Your task to perform on an android device: Add alienware aurora to the cart on ebay.com, then select checkout. Image 0: 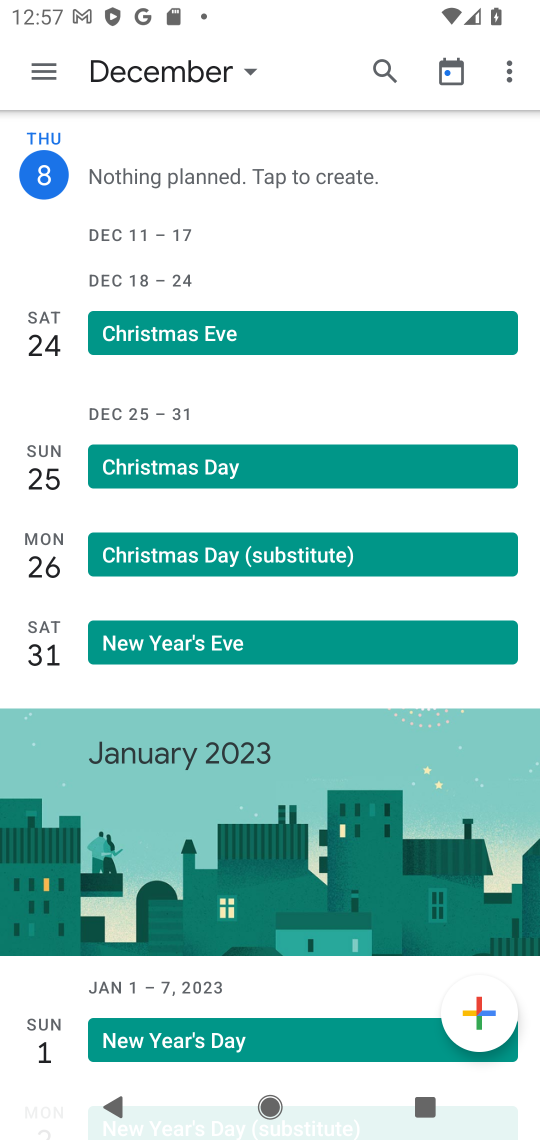
Step 0: press home button
Your task to perform on an android device: Add alienware aurora to the cart on ebay.com, then select checkout. Image 1: 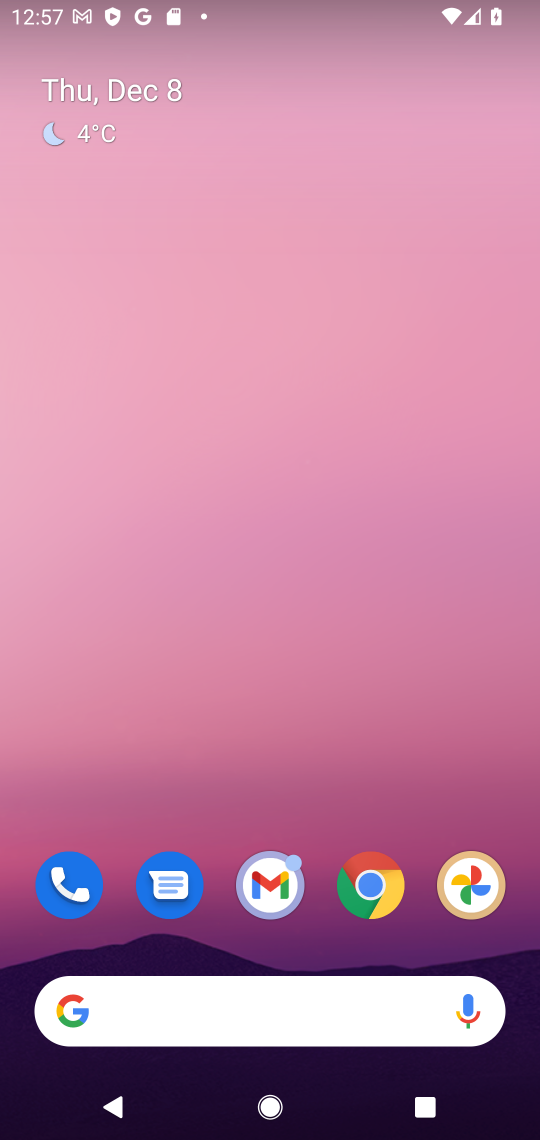
Step 1: click (359, 881)
Your task to perform on an android device: Add alienware aurora to the cart on ebay.com, then select checkout. Image 2: 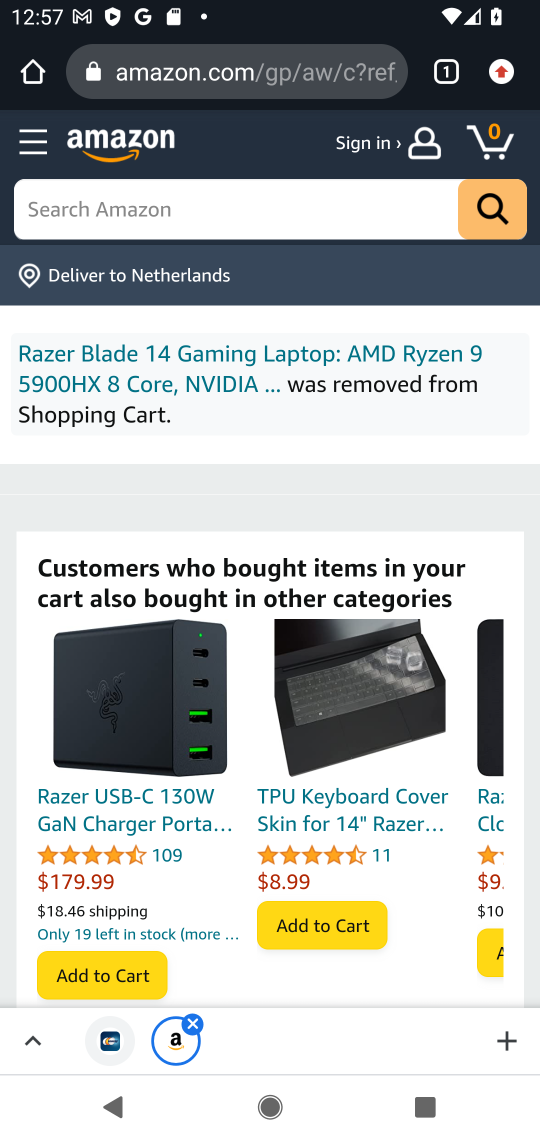
Step 2: click (270, 73)
Your task to perform on an android device: Add alienware aurora to the cart on ebay.com, then select checkout. Image 3: 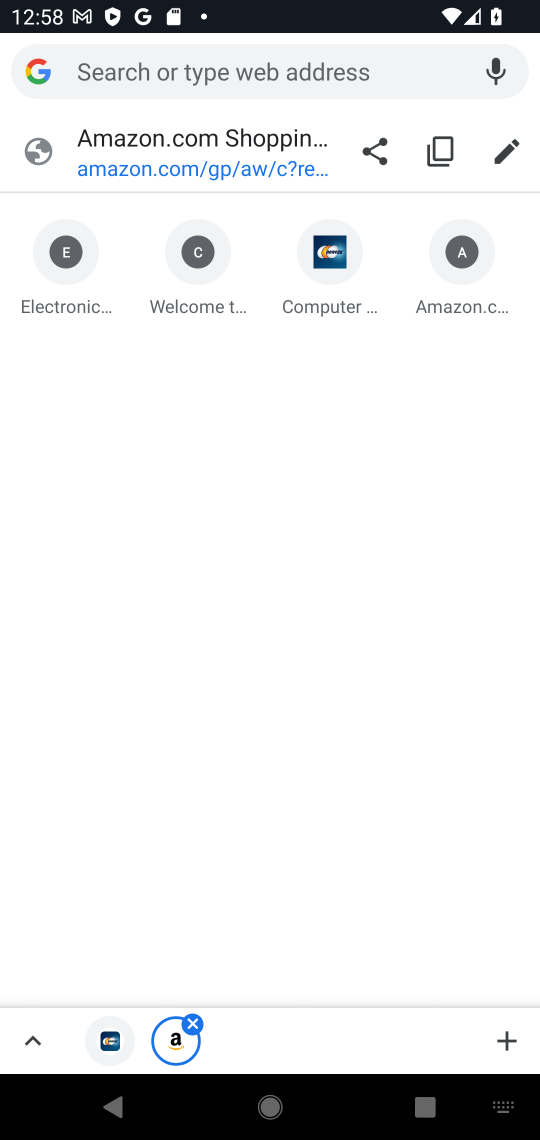
Step 3: type "EBAY"
Your task to perform on an android device: Add alienware aurora to the cart on ebay.com, then select checkout. Image 4: 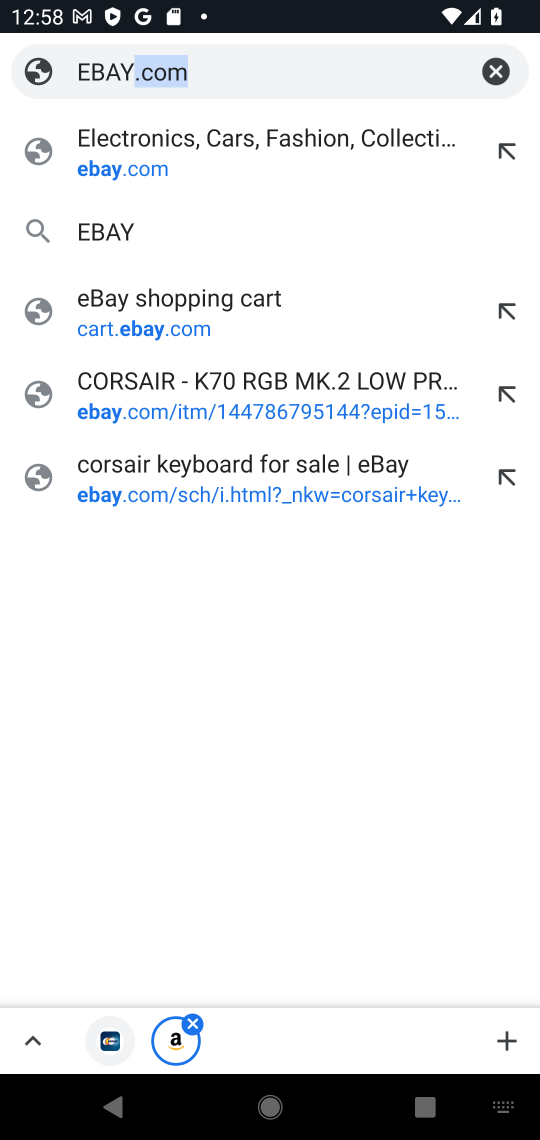
Step 4: click (177, 162)
Your task to perform on an android device: Add alienware aurora to the cart on ebay.com, then select checkout. Image 5: 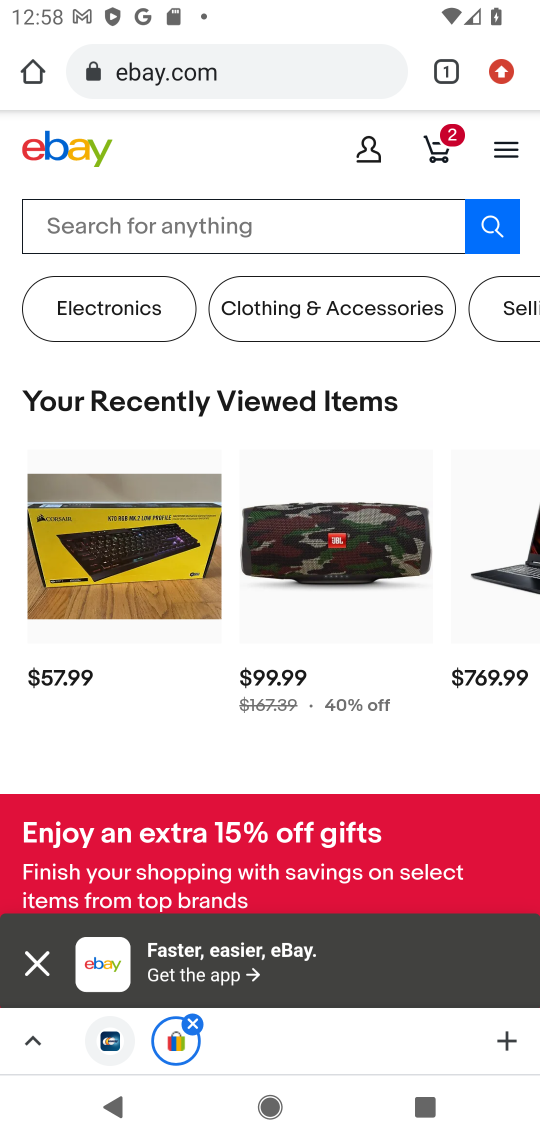
Step 5: click (200, 220)
Your task to perform on an android device: Add alienware aurora to the cart on ebay.com, then select checkout. Image 6: 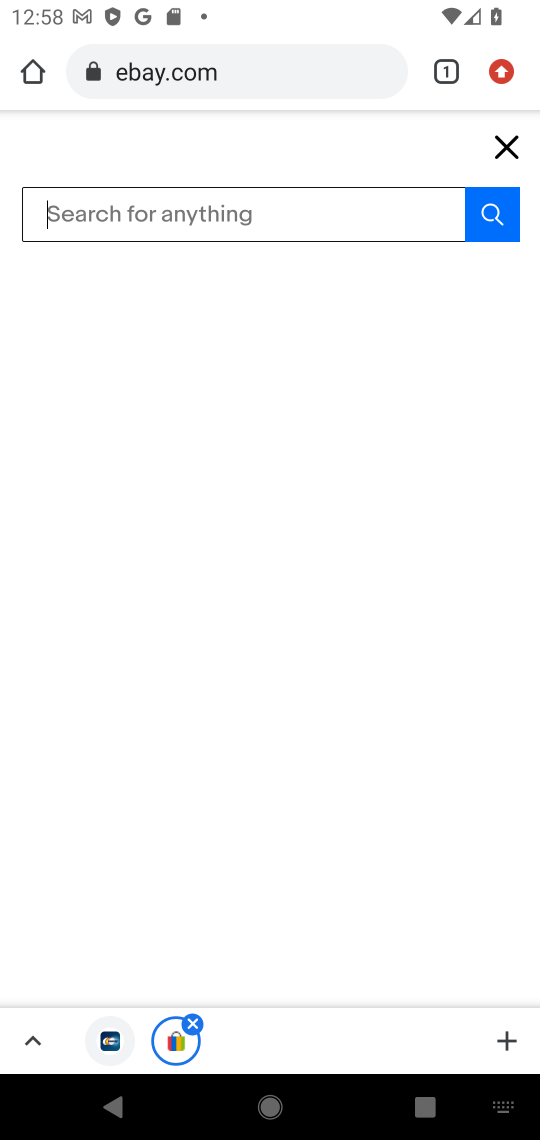
Step 6: type "ALIENWARE AURORA"
Your task to perform on an android device: Add alienware aurora to the cart on ebay.com, then select checkout. Image 7: 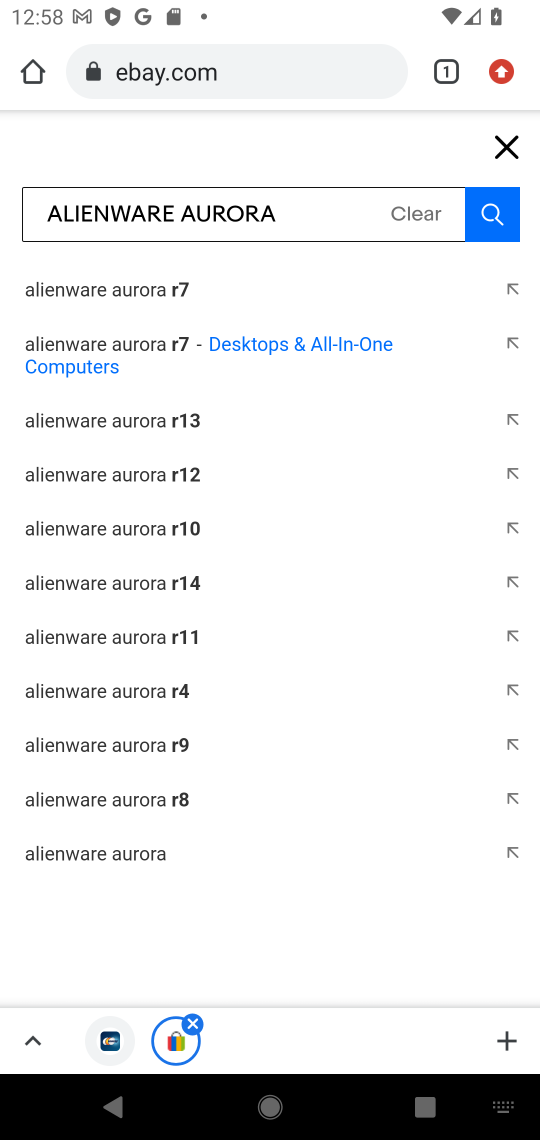
Step 7: click (144, 287)
Your task to perform on an android device: Add alienware aurora to the cart on ebay.com, then select checkout. Image 8: 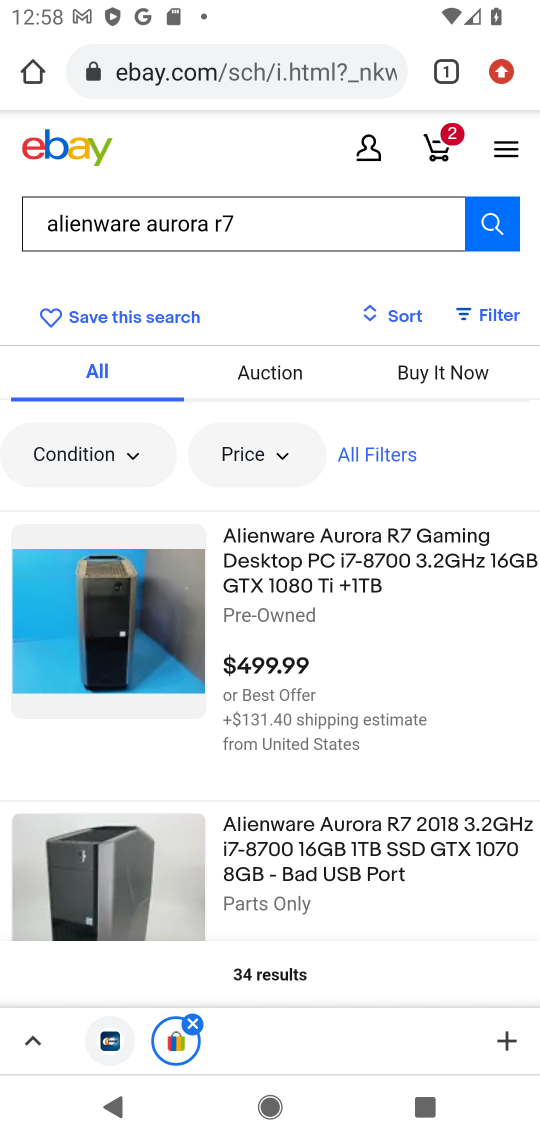
Step 8: click (382, 573)
Your task to perform on an android device: Add alienware aurora to the cart on ebay.com, then select checkout. Image 9: 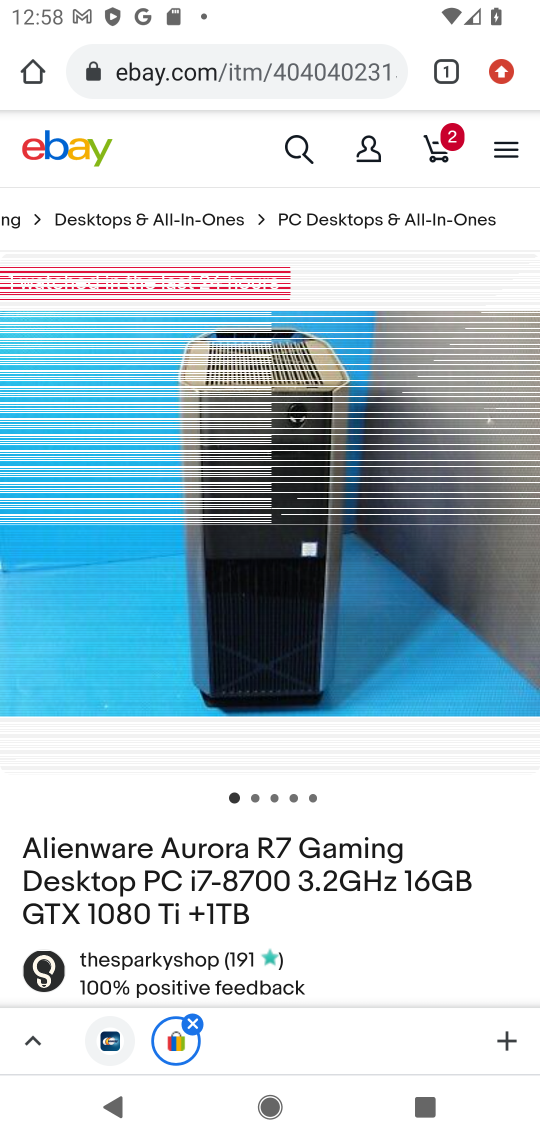
Step 9: drag from (354, 952) to (372, 278)
Your task to perform on an android device: Add alienware aurora to the cart on ebay.com, then select checkout. Image 10: 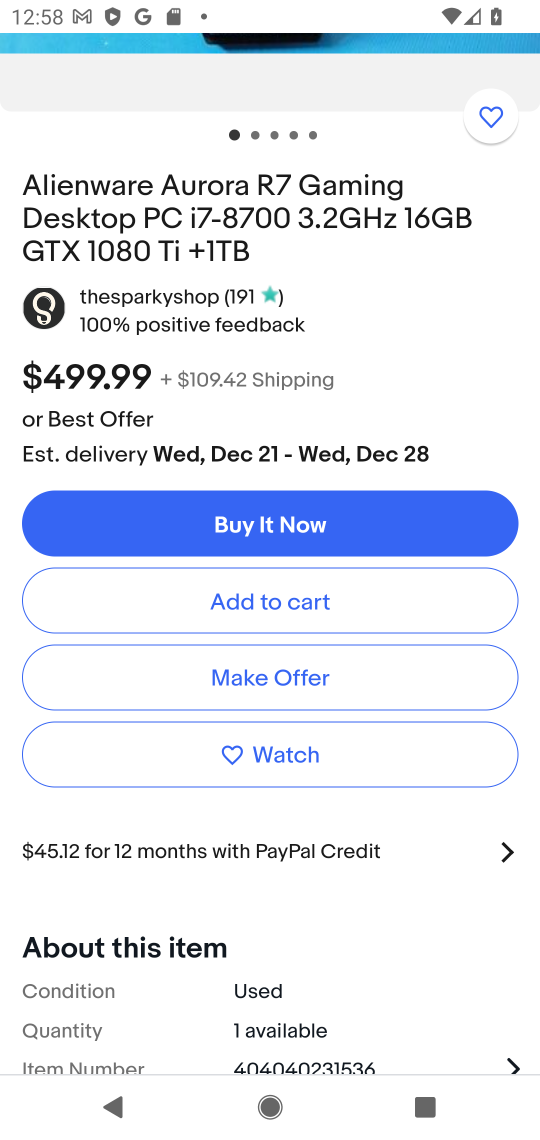
Step 10: click (266, 596)
Your task to perform on an android device: Add alienware aurora to the cart on ebay.com, then select checkout. Image 11: 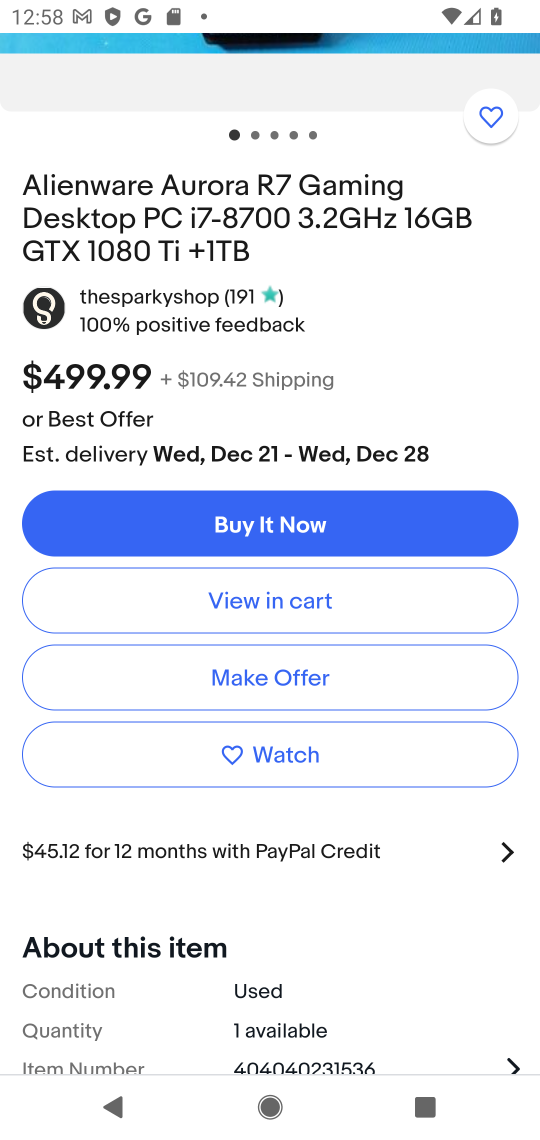
Step 11: click (266, 596)
Your task to perform on an android device: Add alienware aurora to the cart on ebay.com, then select checkout. Image 12: 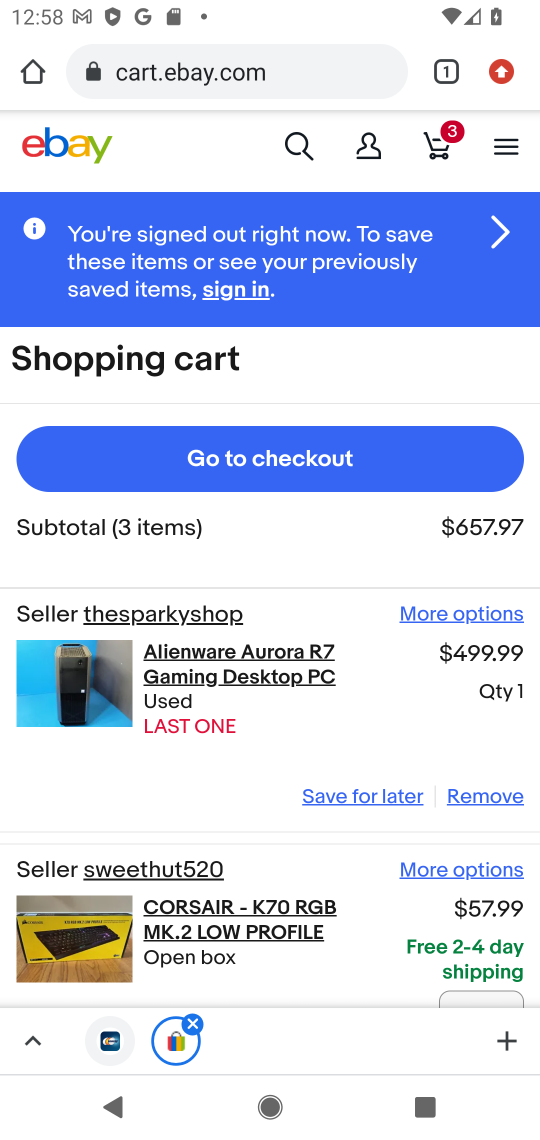
Step 12: click (322, 458)
Your task to perform on an android device: Add alienware aurora to the cart on ebay.com, then select checkout. Image 13: 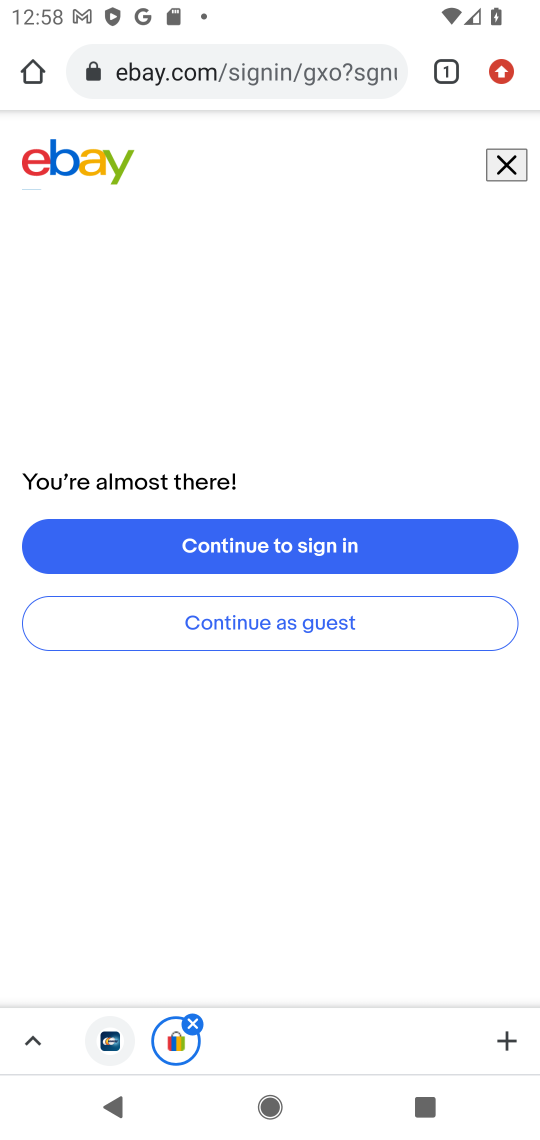
Step 13: task complete